Your task to perform on an android device: Set the phone to "Do not disturb". Image 0: 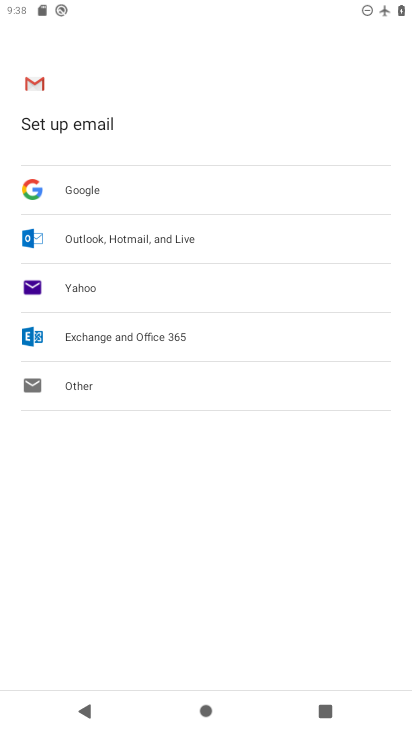
Step 0: drag from (116, 16) to (133, 516)
Your task to perform on an android device: Set the phone to "Do not disturb". Image 1: 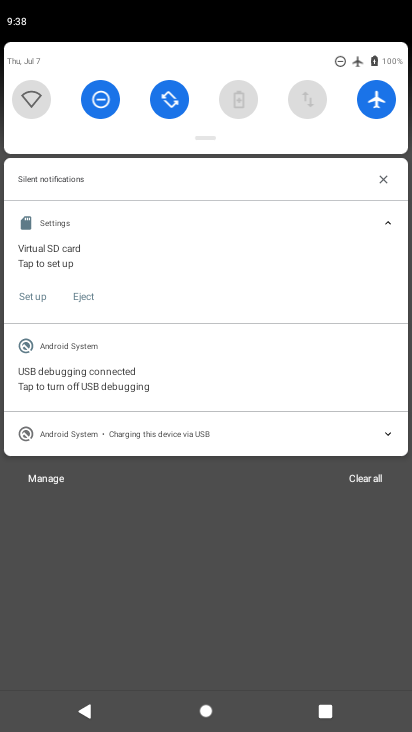
Step 1: task complete